Your task to perform on an android device: turn smart compose on in the gmail app Image 0: 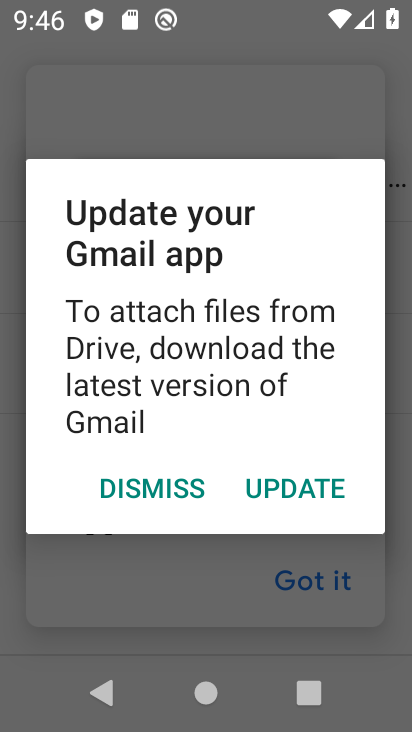
Step 0: press home button
Your task to perform on an android device: turn smart compose on in the gmail app Image 1: 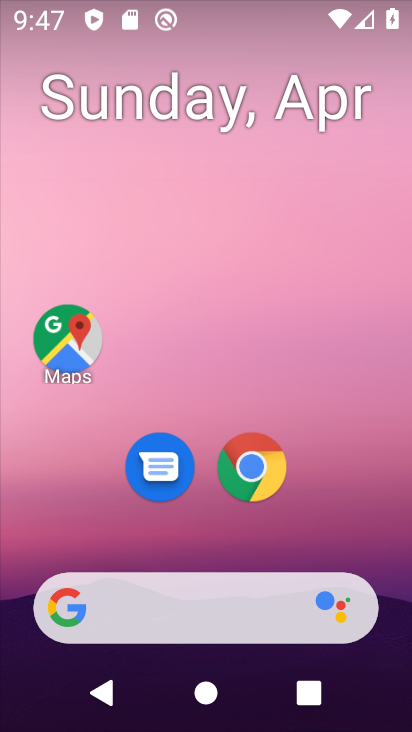
Step 1: drag from (374, 557) to (270, 1)
Your task to perform on an android device: turn smart compose on in the gmail app Image 2: 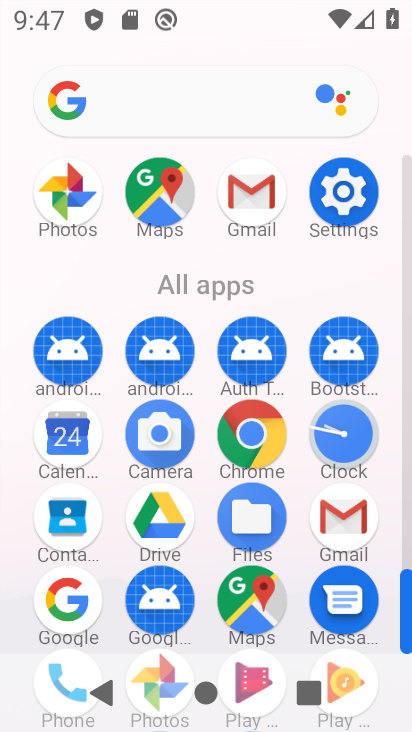
Step 2: click (262, 220)
Your task to perform on an android device: turn smart compose on in the gmail app Image 3: 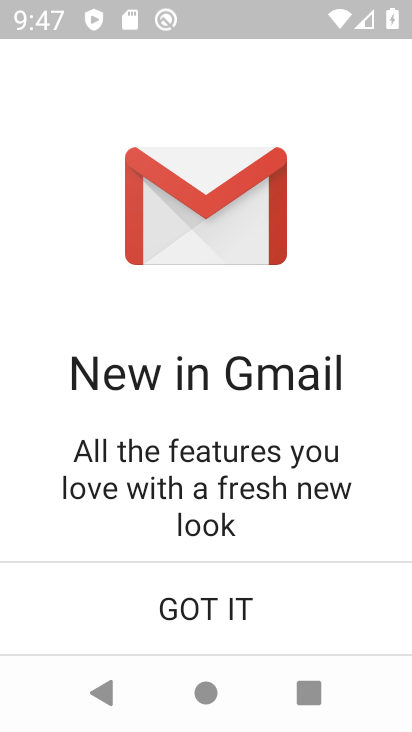
Step 3: click (197, 614)
Your task to perform on an android device: turn smart compose on in the gmail app Image 4: 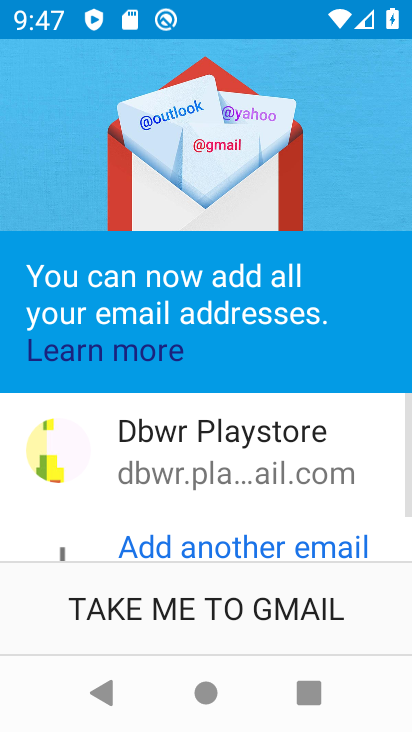
Step 4: click (197, 612)
Your task to perform on an android device: turn smart compose on in the gmail app Image 5: 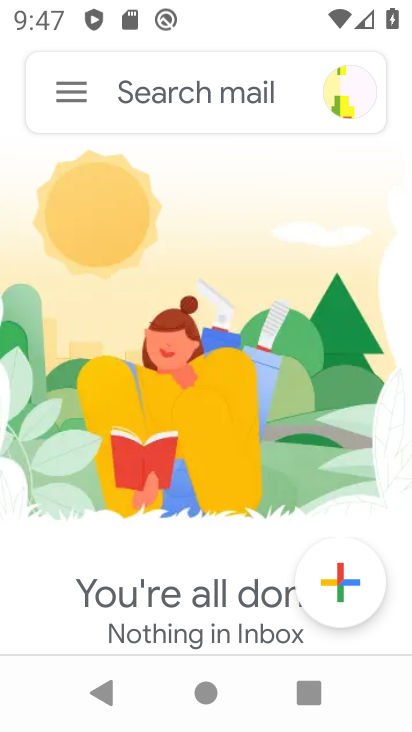
Step 5: drag from (200, 618) to (157, 358)
Your task to perform on an android device: turn smart compose on in the gmail app Image 6: 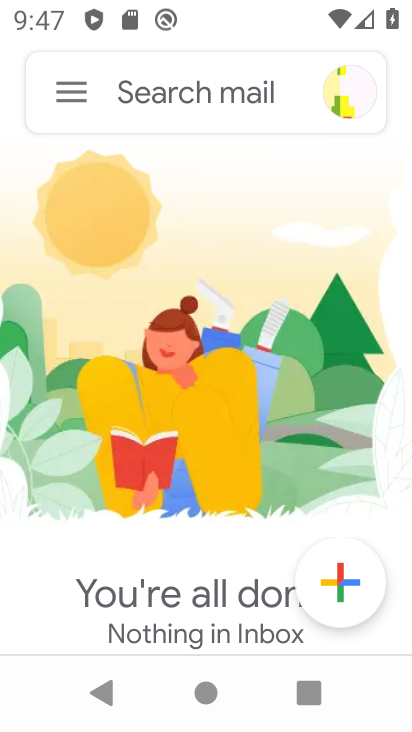
Step 6: click (53, 104)
Your task to perform on an android device: turn smart compose on in the gmail app Image 7: 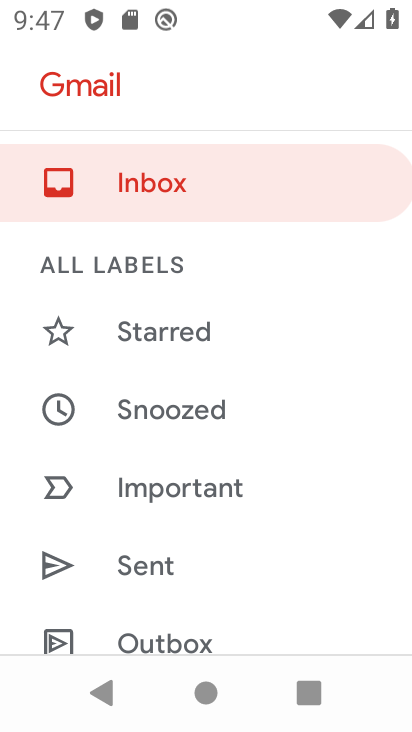
Step 7: drag from (151, 592) to (81, 16)
Your task to perform on an android device: turn smart compose on in the gmail app Image 8: 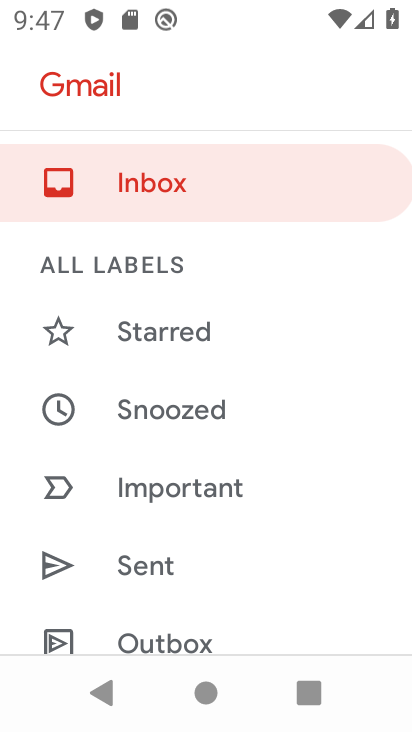
Step 8: drag from (164, 615) to (168, 74)
Your task to perform on an android device: turn smart compose on in the gmail app Image 9: 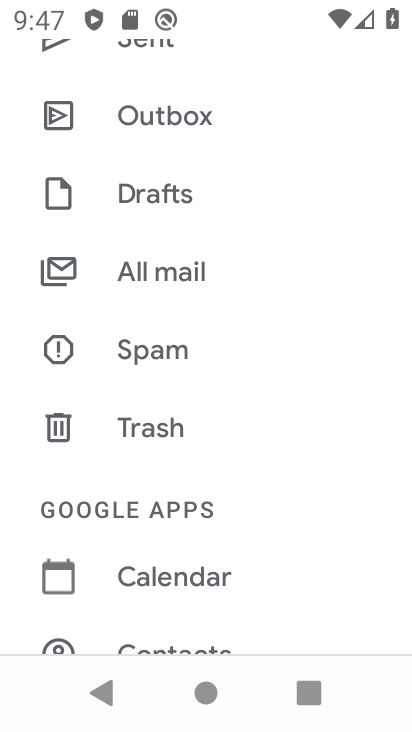
Step 9: drag from (201, 542) to (171, 130)
Your task to perform on an android device: turn smart compose on in the gmail app Image 10: 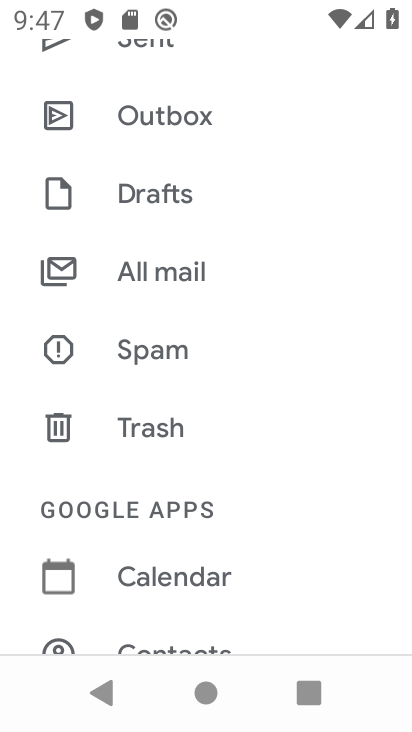
Step 10: drag from (223, 620) to (177, 86)
Your task to perform on an android device: turn smart compose on in the gmail app Image 11: 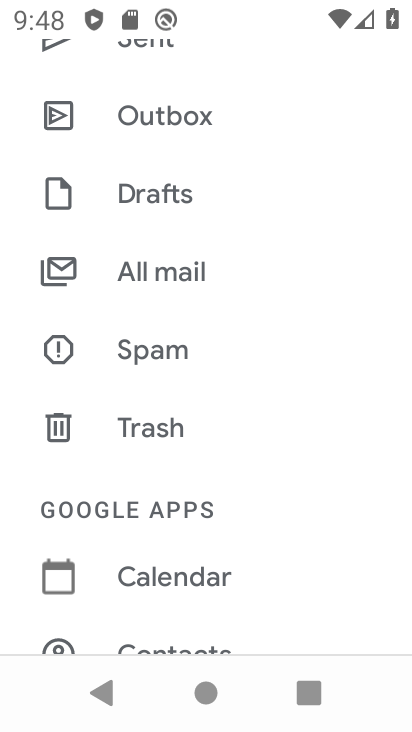
Step 11: drag from (195, 551) to (236, 112)
Your task to perform on an android device: turn smart compose on in the gmail app Image 12: 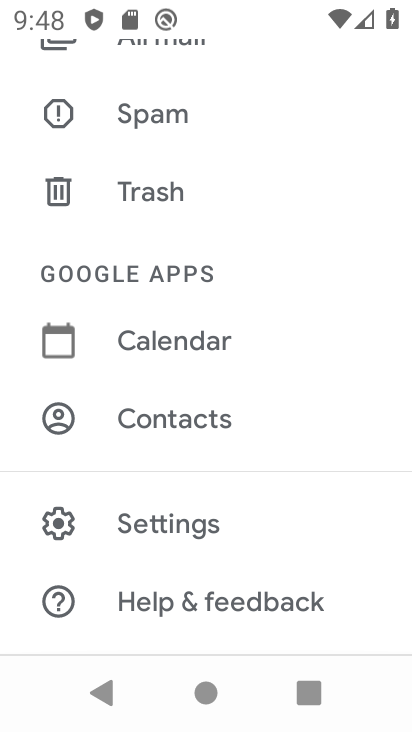
Step 12: click (197, 519)
Your task to perform on an android device: turn smart compose on in the gmail app Image 13: 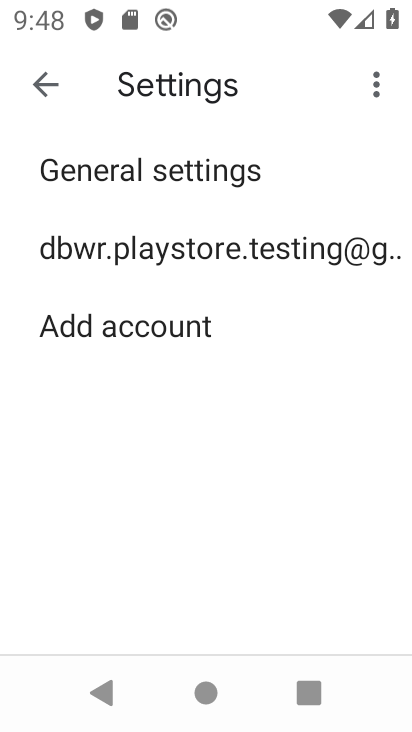
Step 13: click (184, 251)
Your task to perform on an android device: turn smart compose on in the gmail app Image 14: 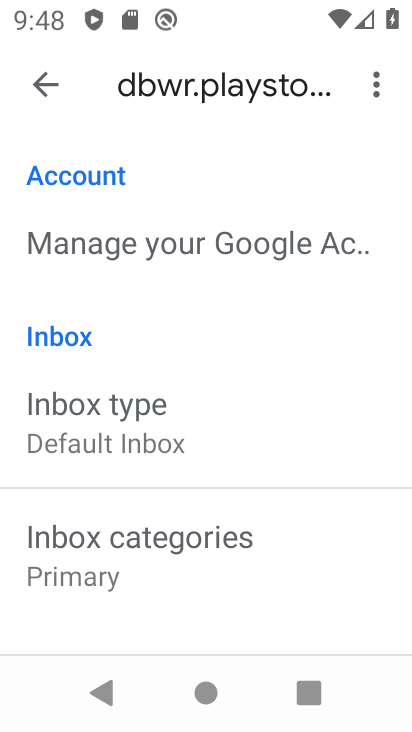
Step 14: task complete